Your task to perform on an android device: see creations saved in the google photos Image 0: 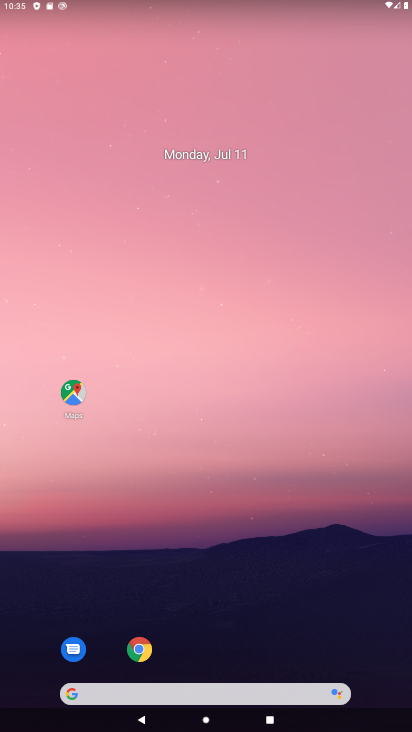
Step 0: drag from (183, 695) to (144, 281)
Your task to perform on an android device: see creations saved in the google photos Image 1: 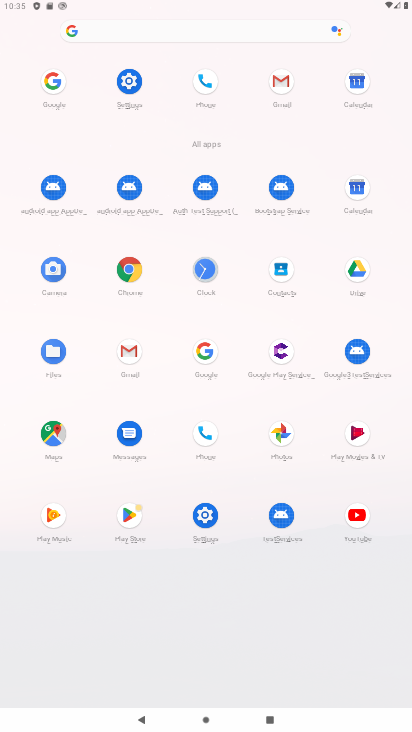
Step 1: click (282, 434)
Your task to perform on an android device: see creations saved in the google photos Image 2: 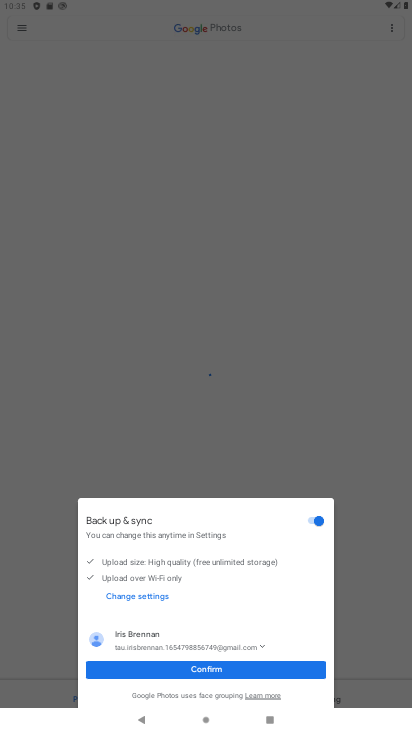
Step 2: click (182, 666)
Your task to perform on an android device: see creations saved in the google photos Image 3: 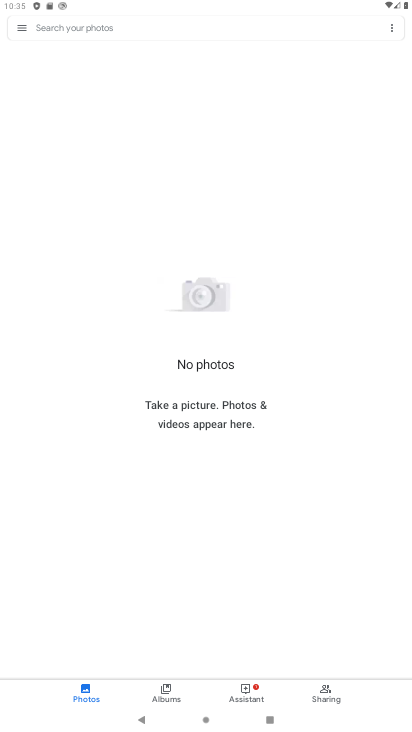
Step 3: click (255, 689)
Your task to perform on an android device: see creations saved in the google photos Image 4: 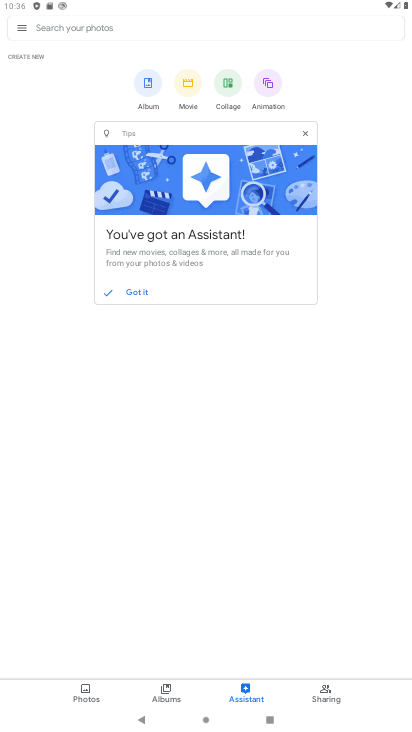
Step 4: click (271, 87)
Your task to perform on an android device: see creations saved in the google photos Image 5: 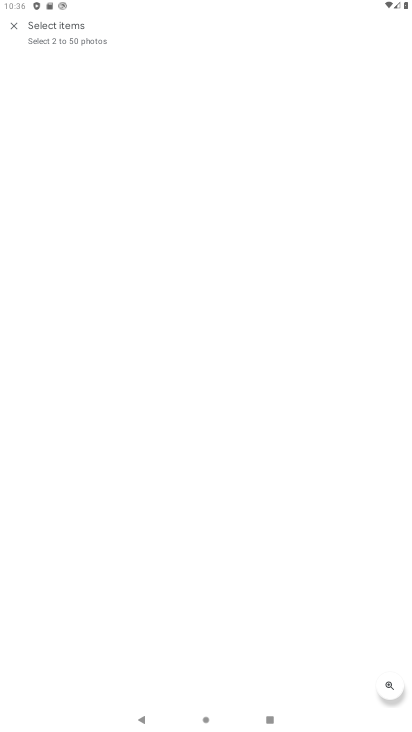
Step 5: click (175, 204)
Your task to perform on an android device: see creations saved in the google photos Image 6: 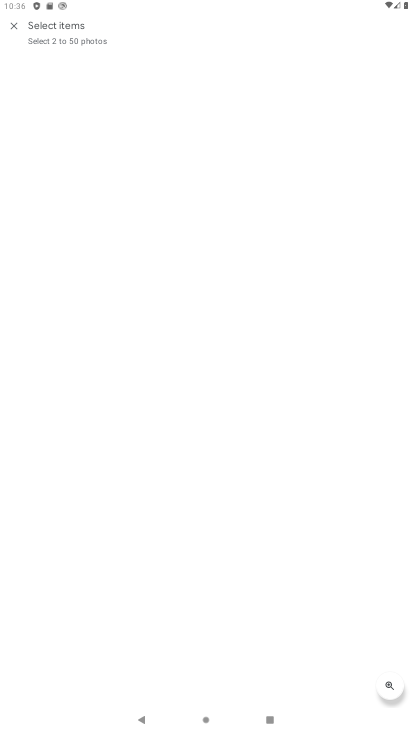
Step 6: press back button
Your task to perform on an android device: see creations saved in the google photos Image 7: 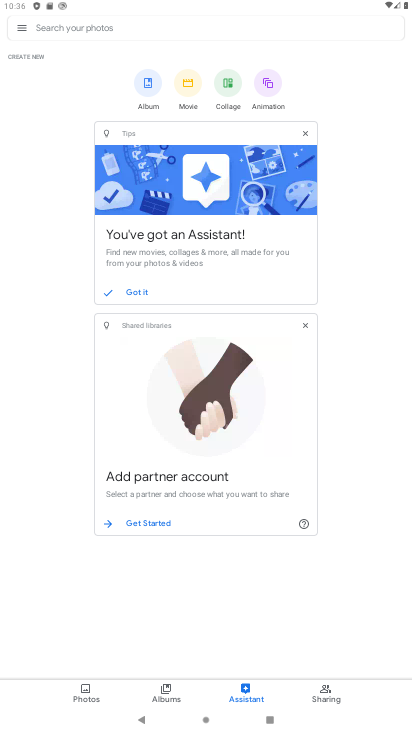
Step 7: click (205, 26)
Your task to perform on an android device: see creations saved in the google photos Image 8: 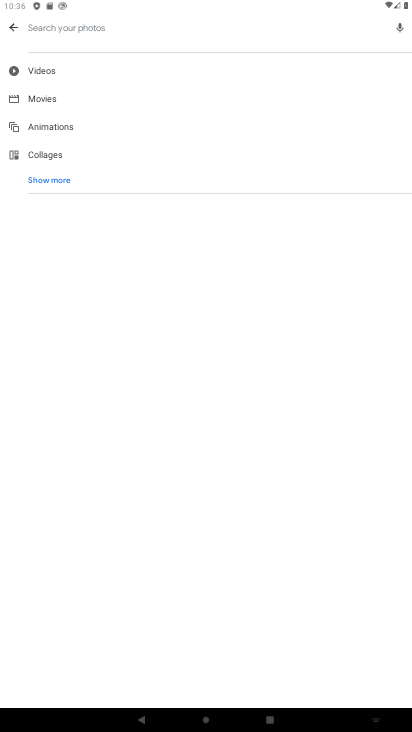
Step 8: click (42, 181)
Your task to perform on an android device: see creations saved in the google photos Image 9: 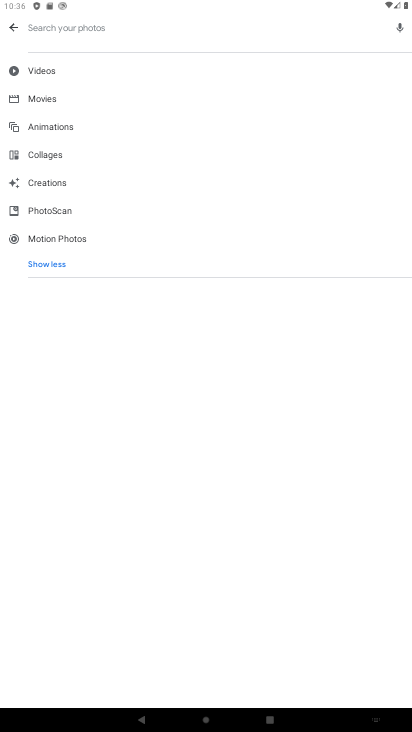
Step 9: click (55, 187)
Your task to perform on an android device: see creations saved in the google photos Image 10: 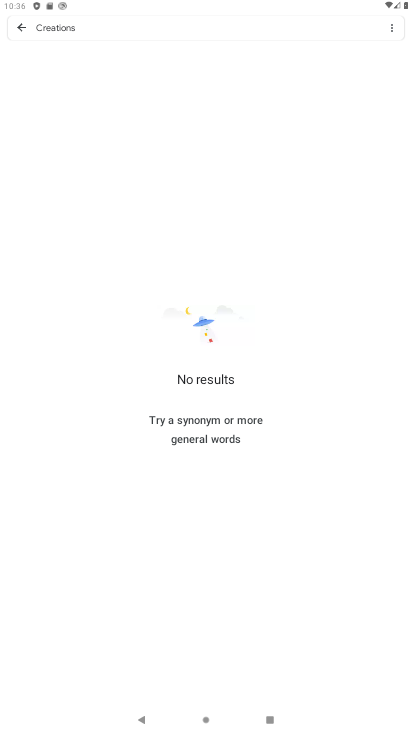
Step 10: task complete